Your task to perform on an android device: add a contact in the contacts app Image 0: 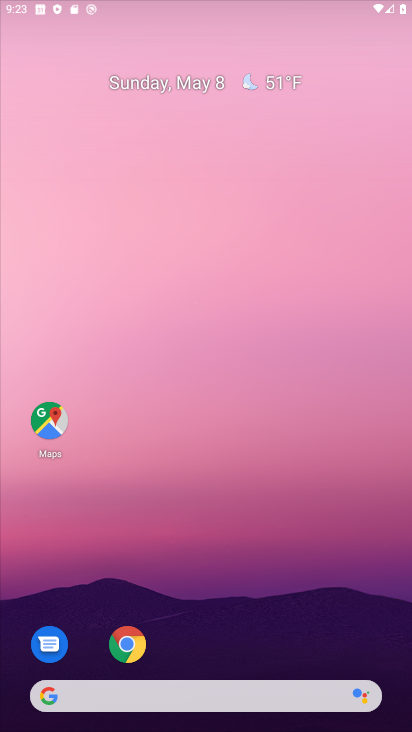
Step 0: drag from (186, 555) to (273, 85)
Your task to perform on an android device: add a contact in the contacts app Image 1: 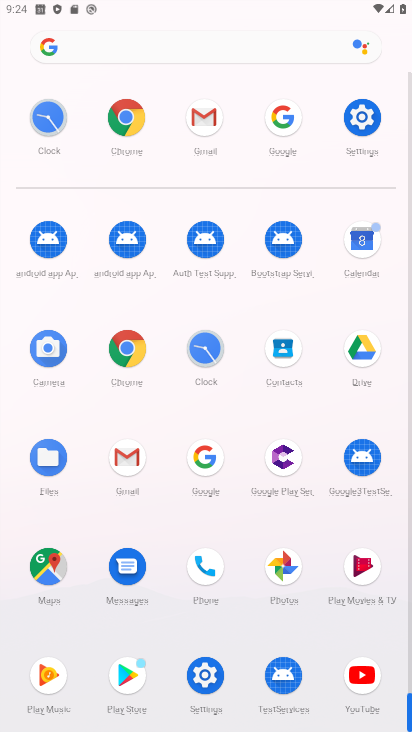
Step 1: click (274, 355)
Your task to perform on an android device: add a contact in the contacts app Image 2: 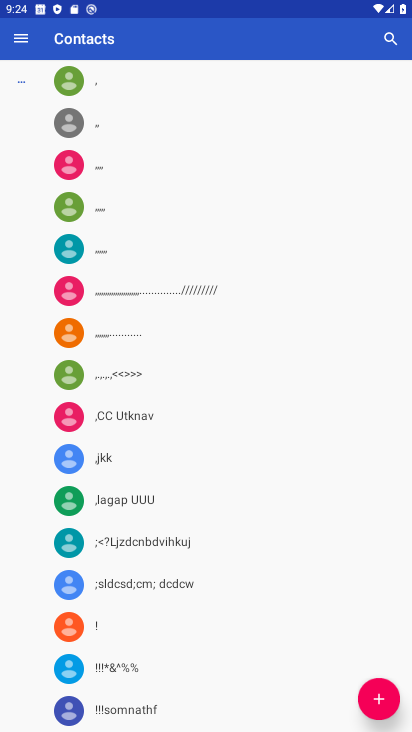
Step 2: drag from (225, 641) to (318, 327)
Your task to perform on an android device: add a contact in the contacts app Image 3: 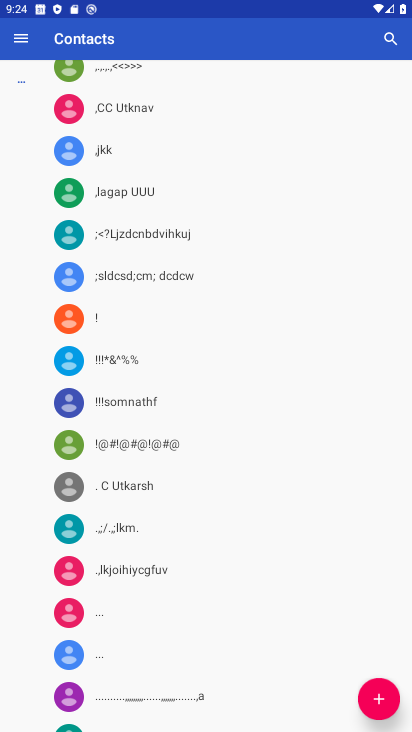
Step 3: click (370, 694)
Your task to perform on an android device: add a contact in the contacts app Image 4: 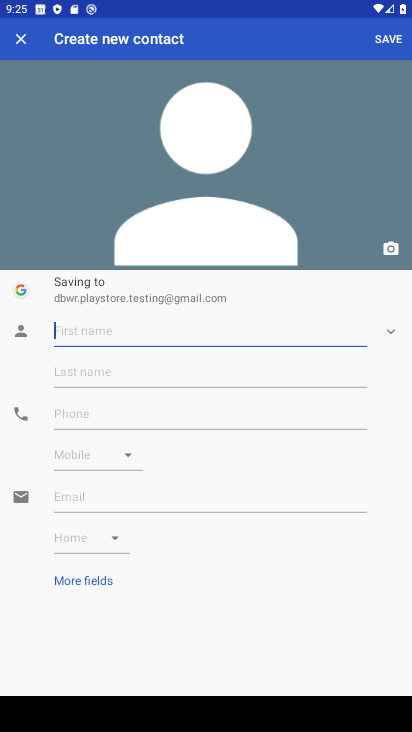
Step 4: click (112, 326)
Your task to perform on an android device: add a contact in the contacts app Image 5: 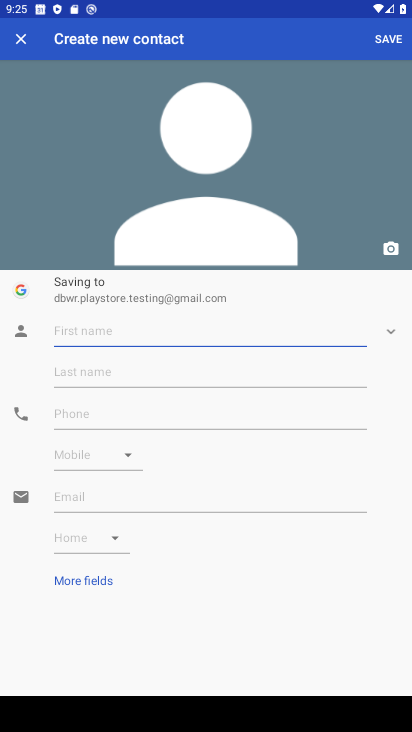
Step 5: type "nhjk"
Your task to perform on an android device: add a contact in the contacts app Image 6: 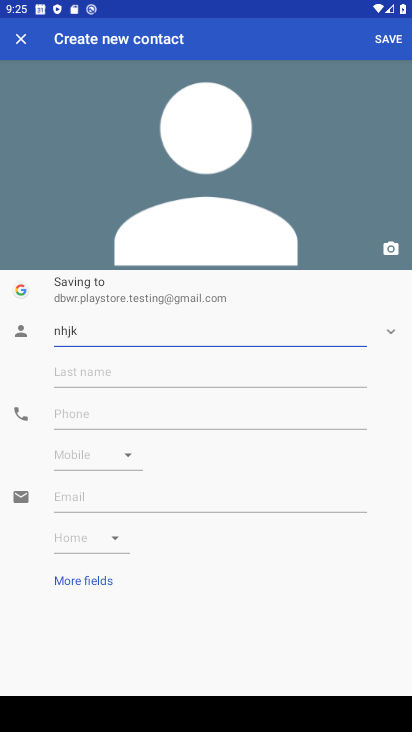
Step 6: click (382, 35)
Your task to perform on an android device: add a contact in the contacts app Image 7: 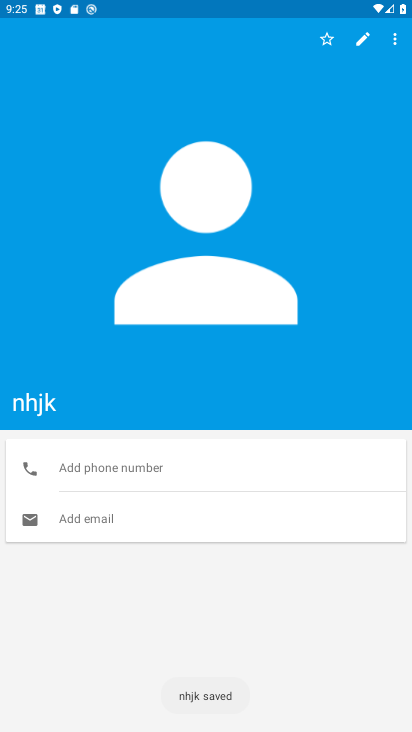
Step 7: task complete